Your task to perform on an android device: check out phone information Image 0: 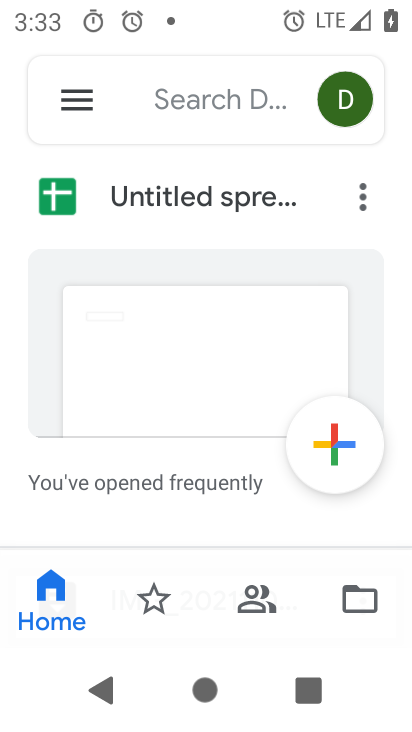
Step 0: press home button
Your task to perform on an android device: check out phone information Image 1: 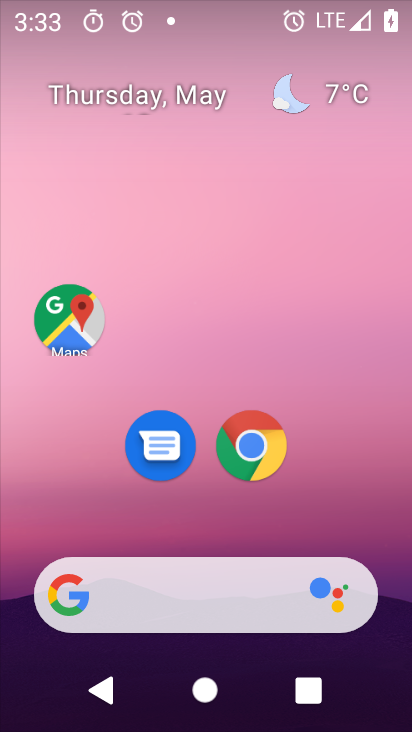
Step 1: drag from (351, 532) to (328, 8)
Your task to perform on an android device: check out phone information Image 2: 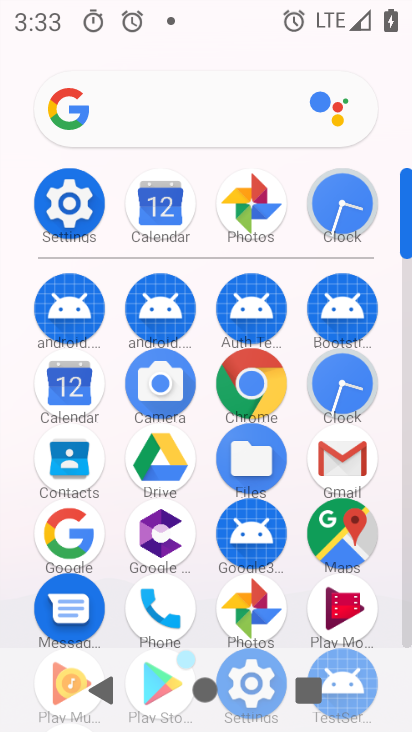
Step 2: click (77, 203)
Your task to perform on an android device: check out phone information Image 3: 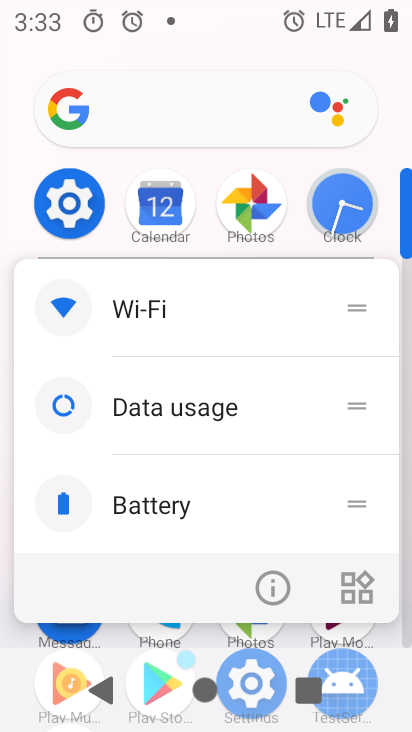
Step 3: click (63, 210)
Your task to perform on an android device: check out phone information Image 4: 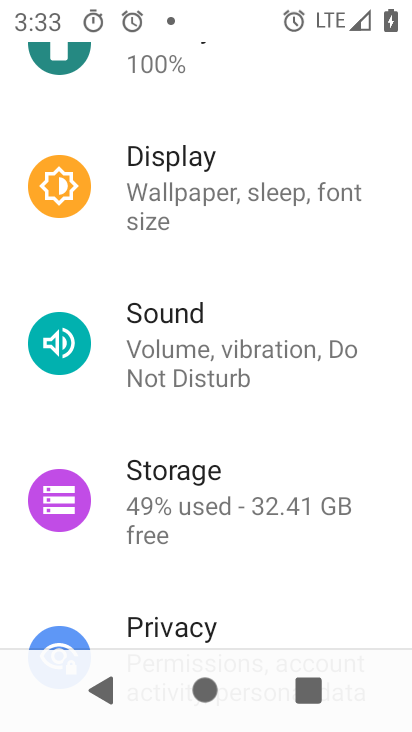
Step 4: drag from (359, 542) to (313, 135)
Your task to perform on an android device: check out phone information Image 5: 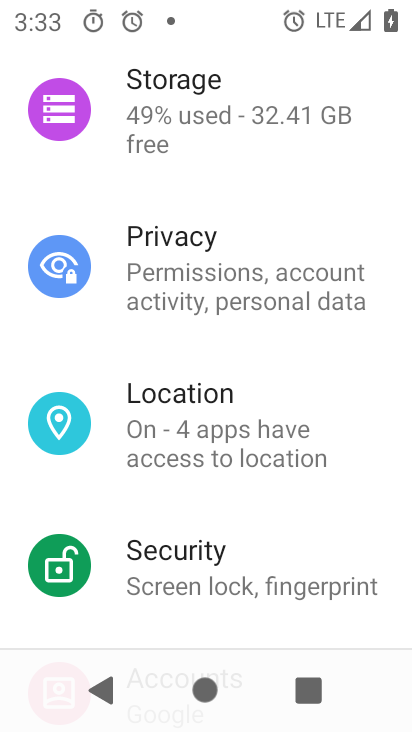
Step 5: drag from (345, 568) to (302, 178)
Your task to perform on an android device: check out phone information Image 6: 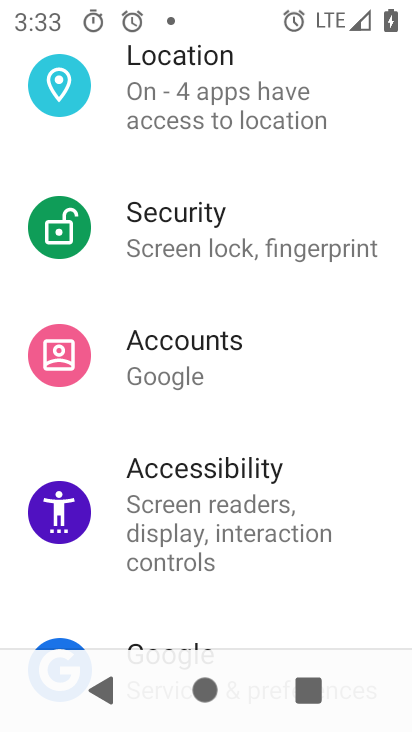
Step 6: drag from (340, 567) to (313, 196)
Your task to perform on an android device: check out phone information Image 7: 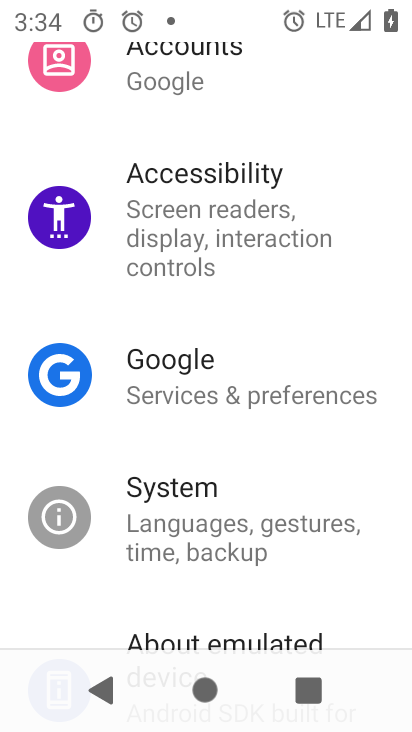
Step 7: drag from (344, 508) to (301, 224)
Your task to perform on an android device: check out phone information Image 8: 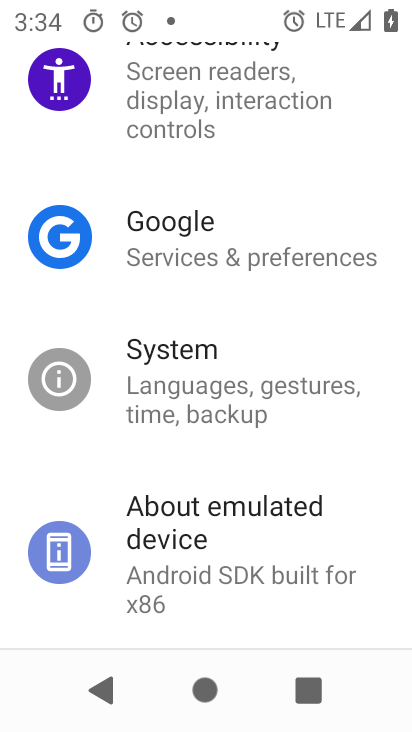
Step 8: click (205, 531)
Your task to perform on an android device: check out phone information Image 9: 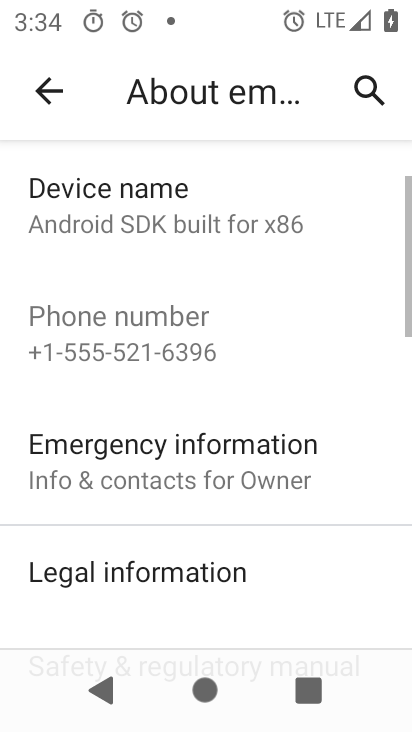
Step 9: task complete